Your task to perform on an android device: turn off notifications settings in the gmail app Image 0: 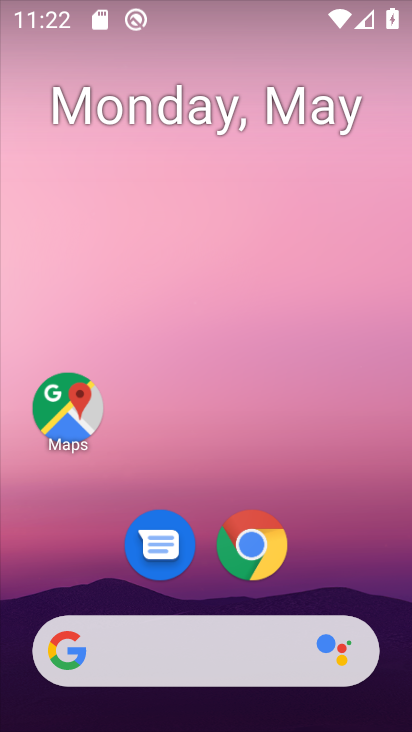
Step 0: drag from (96, 579) to (238, 41)
Your task to perform on an android device: turn off notifications settings in the gmail app Image 1: 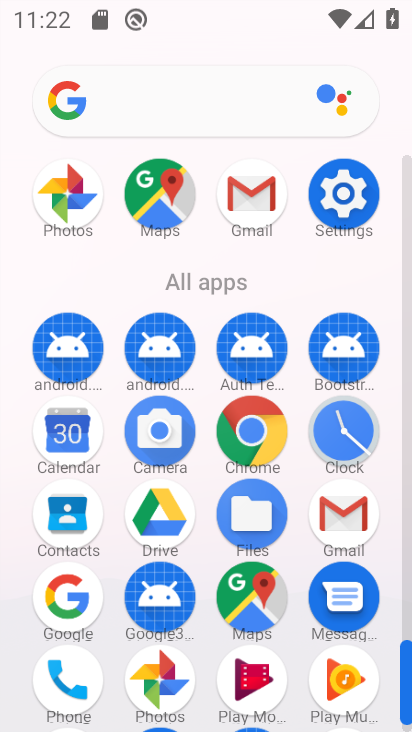
Step 1: drag from (151, 590) to (215, 329)
Your task to perform on an android device: turn off notifications settings in the gmail app Image 2: 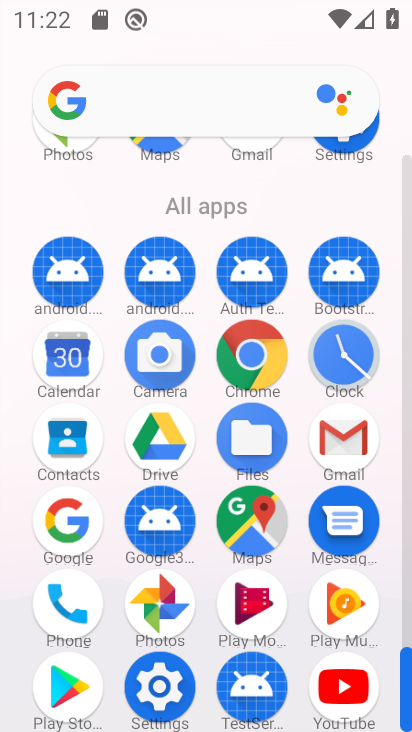
Step 2: click (343, 451)
Your task to perform on an android device: turn off notifications settings in the gmail app Image 3: 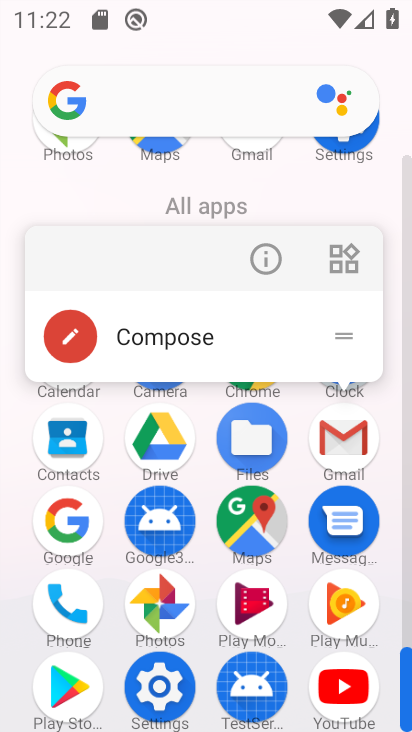
Step 3: click (348, 449)
Your task to perform on an android device: turn off notifications settings in the gmail app Image 4: 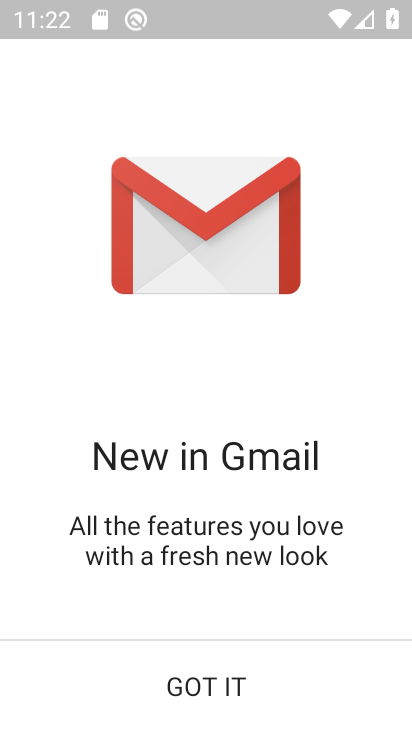
Step 4: click (205, 680)
Your task to perform on an android device: turn off notifications settings in the gmail app Image 5: 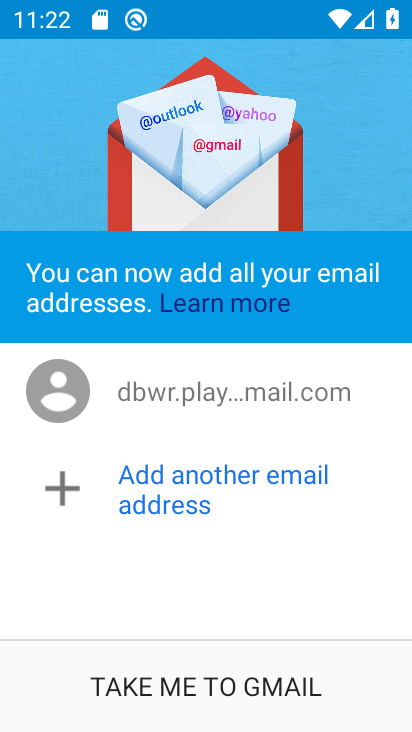
Step 5: click (205, 680)
Your task to perform on an android device: turn off notifications settings in the gmail app Image 6: 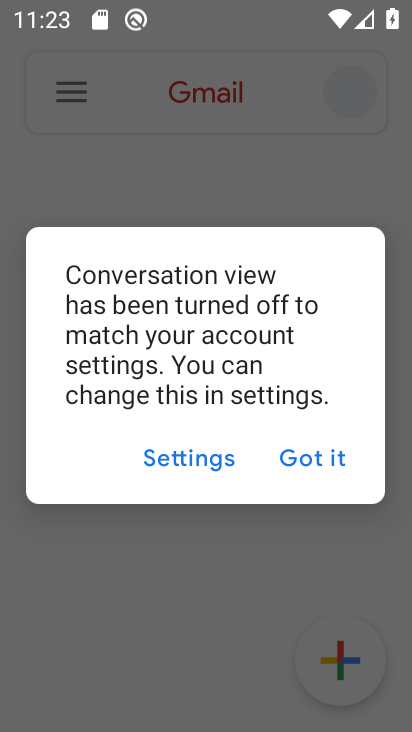
Step 6: click (318, 464)
Your task to perform on an android device: turn off notifications settings in the gmail app Image 7: 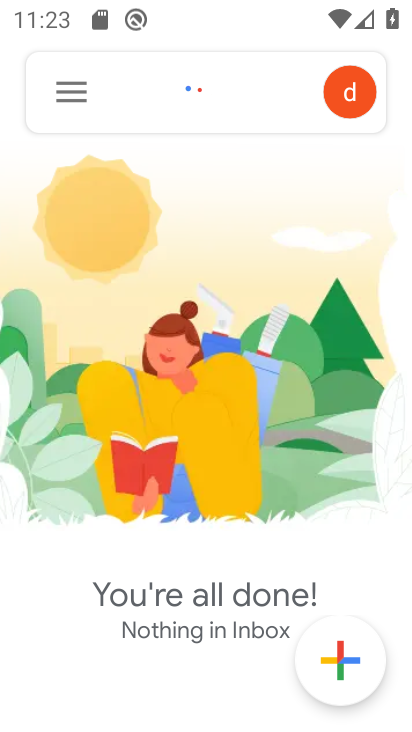
Step 7: click (87, 91)
Your task to perform on an android device: turn off notifications settings in the gmail app Image 8: 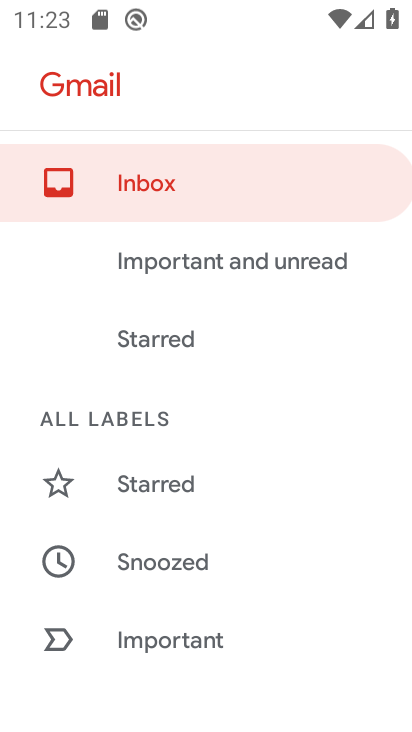
Step 8: drag from (145, 576) to (282, 129)
Your task to perform on an android device: turn off notifications settings in the gmail app Image 9: 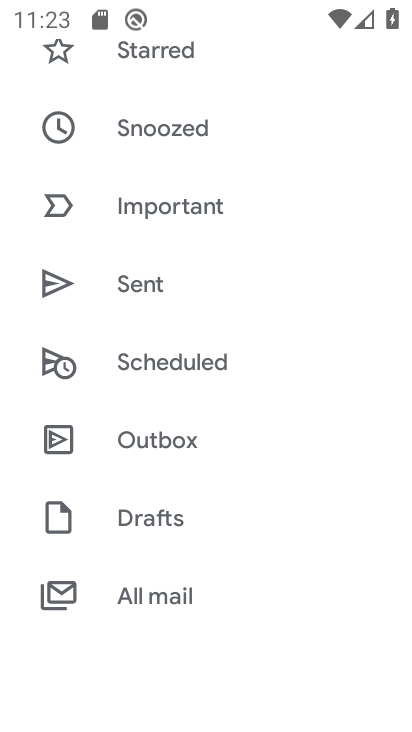
Step 9: drag from (183, 537) to (276, 144)
Your task to perform on an android device: turn off notifications settings in the gmail app Image 10: 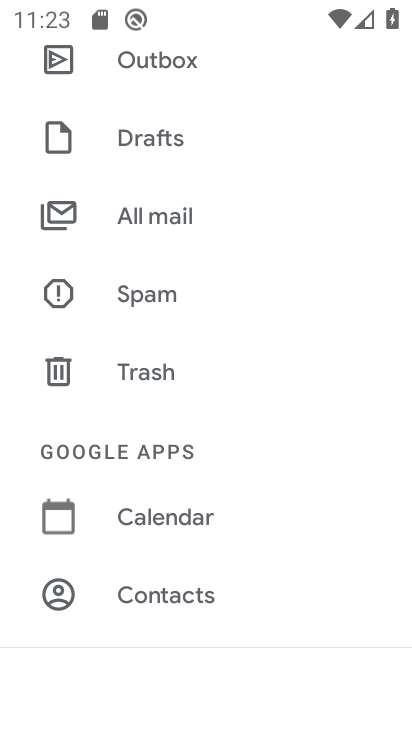
Step 10: drag from (216, 543) to (296, 178)
Your task to perform on an android device: turn off notifications settings in the gmail app Image 11: 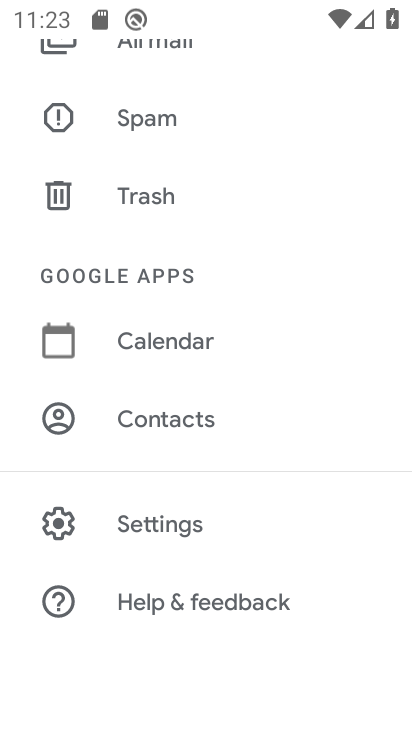
Step 11: click (197, 540)
Your task to perform on an android device: turn off notifications settings in the gmail app Image 12: 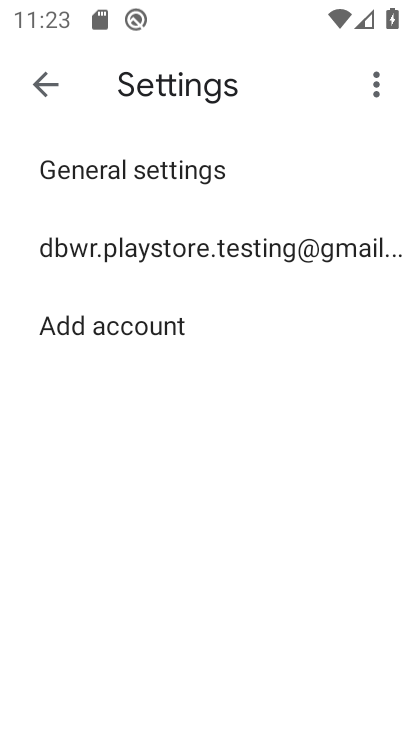
Step 12: click (283, 239)
Your task to perform on an android device: turn off notifications settings in the gmail app Image 13: 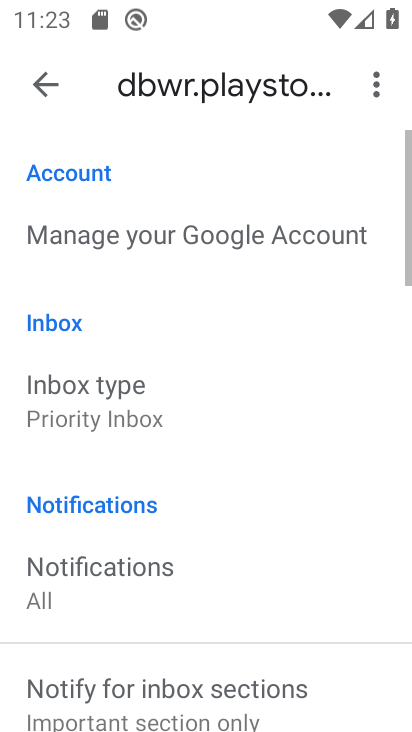
Step 13: drag from (191, 565) to (292, 158)
Your task to perform on an android device: turn off notifications settings in the gmail app Image 14: 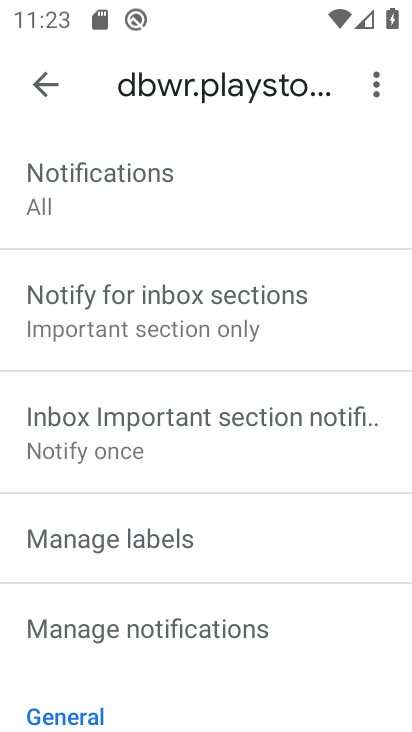
Step 14: click (199, 623)
Your task to perform on an android device: turn off notifications settings in the gmail app Image 15: 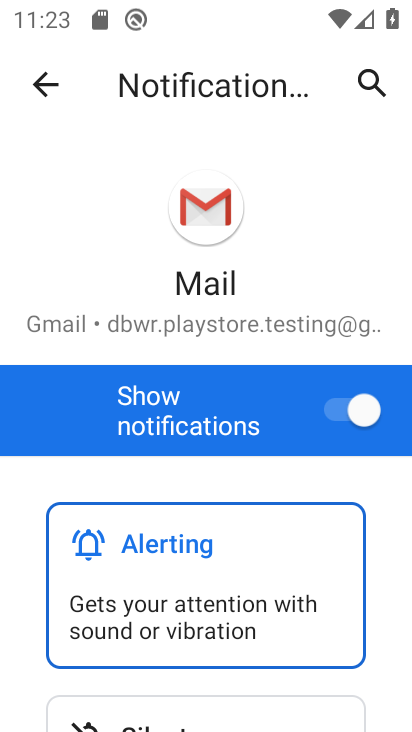
Step 15: click (343, 424)
Your task to perform on an android device: turn off notifications settings in the gmail app Image 16: 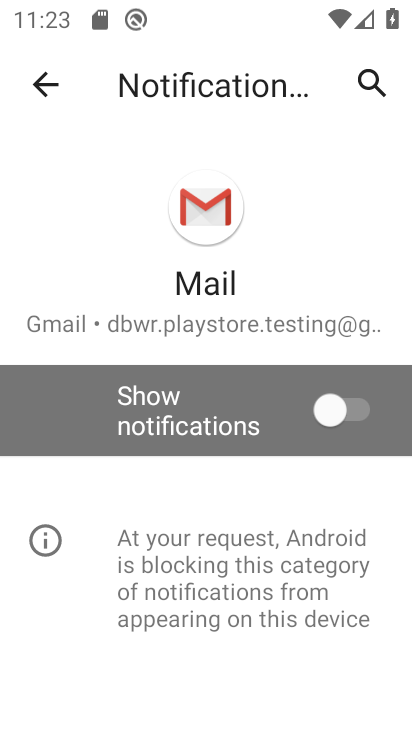
Step 16: task complete